Your task to perform on an android device: toggle sleep mode Image 0: 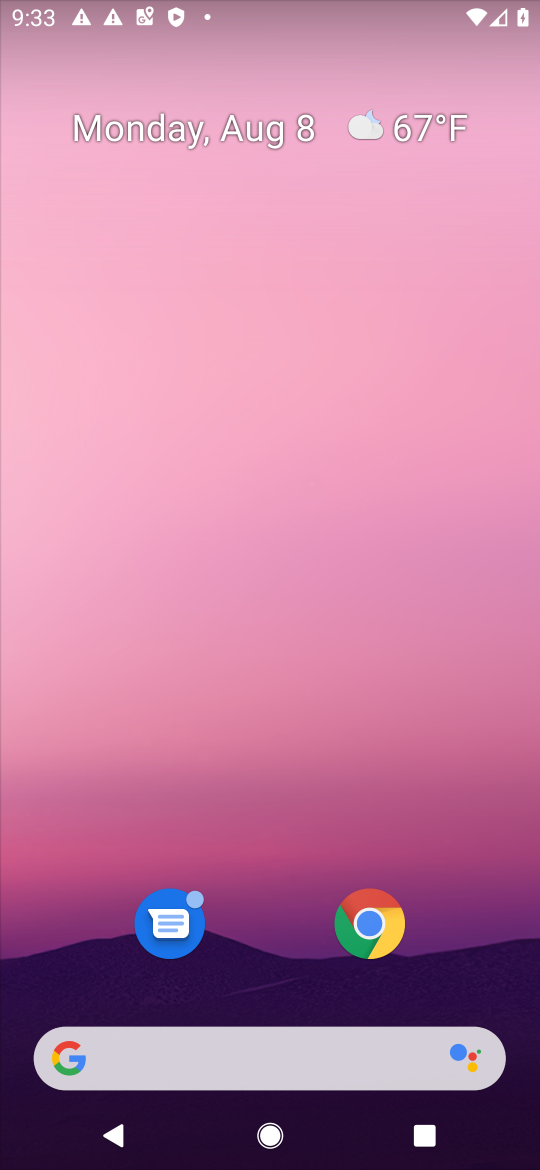
Step 0: drag from (47, 1126) to (272, 262)
Your task to perform on an android device: toggle sleep mode Image 1: 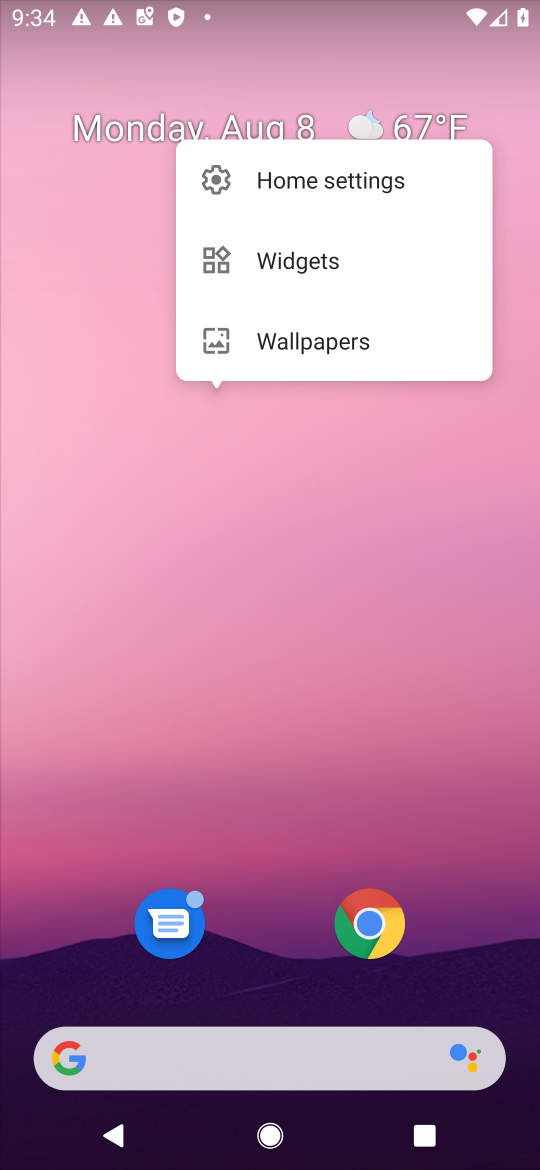
Step 1: task complete